Your task to perform on an android device: Search for Italian restaurants on Maps Image 0: 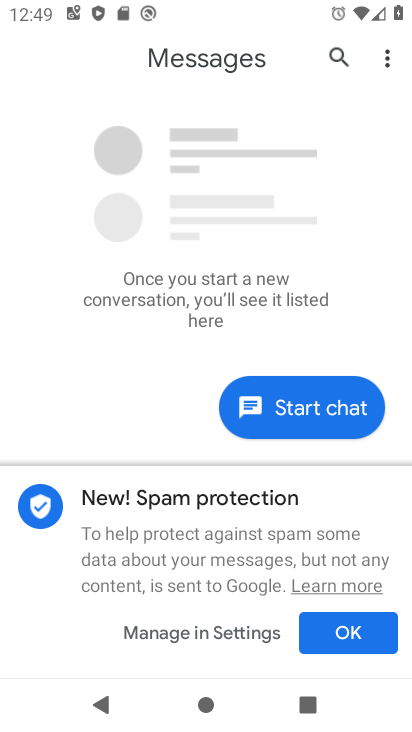
Step 0: press home button
Your task to perform on an android device: Search for Italian restaurants on Maps Image 1: 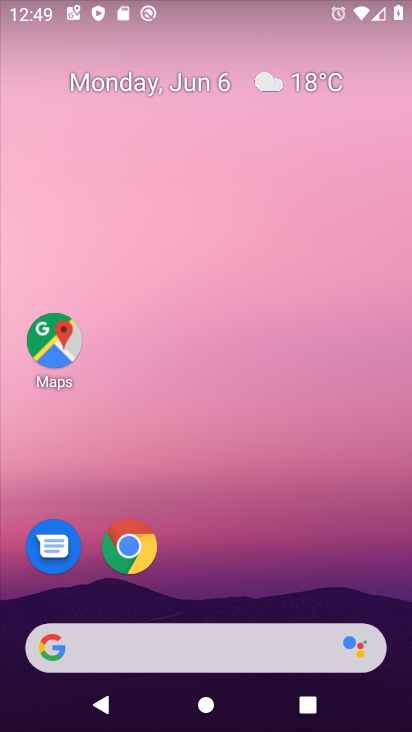
Step 1: click (66, 332)
Your task to perform on an android device: Search for Italian restaurants on Maps Image 2: 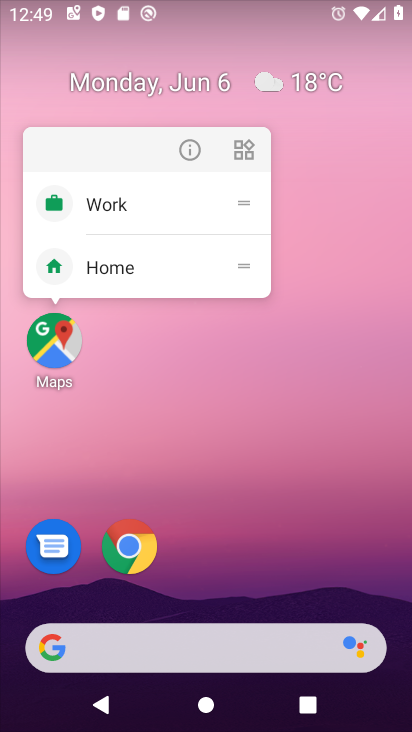
Step 2: click (56, 330)
Your task to perform on an android device: Search for Italian restaurants on Maps Image 3: 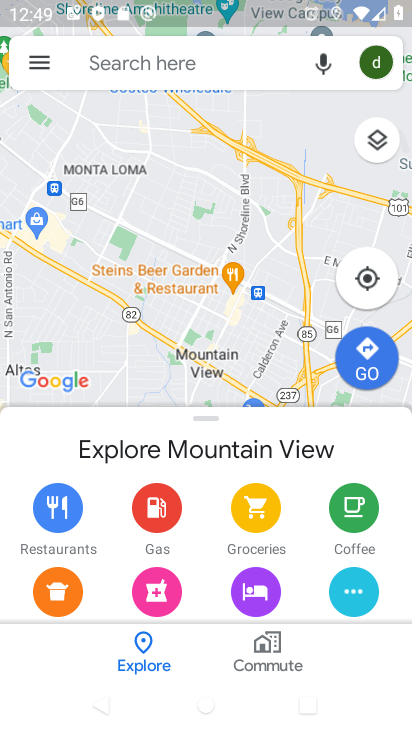
Step 3: click (199, 69)
Your task to perform on an android device: Search for Italian restaurants on Maps Image 4: 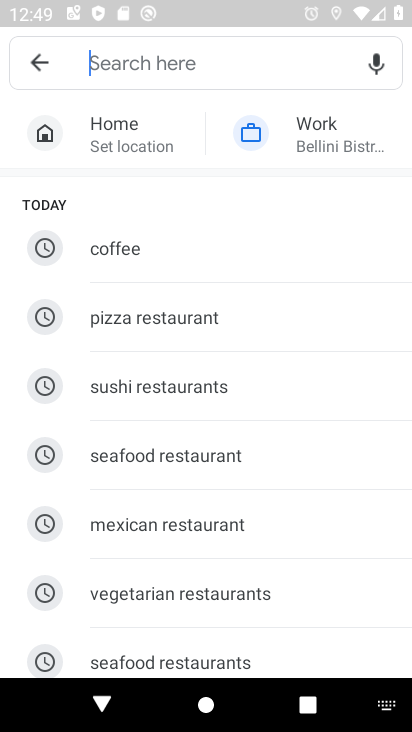
Step 4: type "Italian restaurants"
Your task to perform on an android device: Search for Italian restaurants on Maps Image 5: 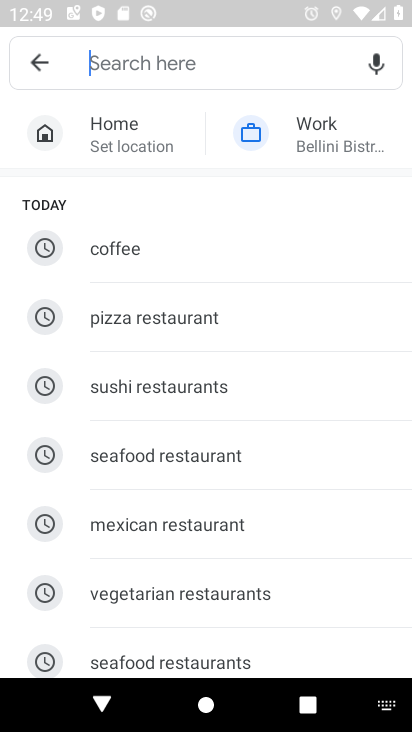
Step 5: click (141, 67)
Your task to perform on an android device: Search for Italian restaurants on Maps Image 6: 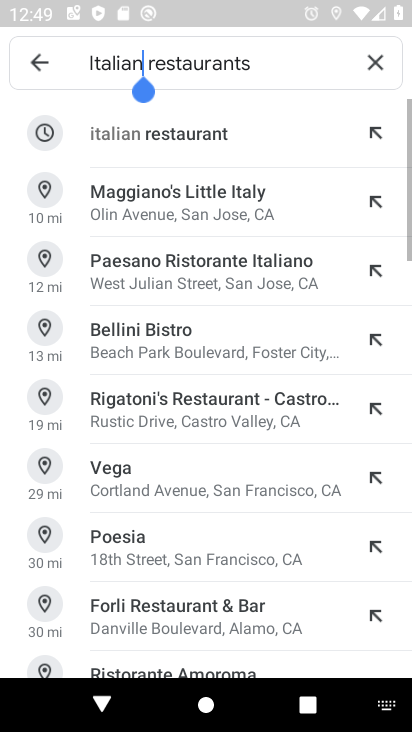
Step 6: click (191, 135)
Your task to perform on an android device: Search for Italian restaurants on Maps Image 7: 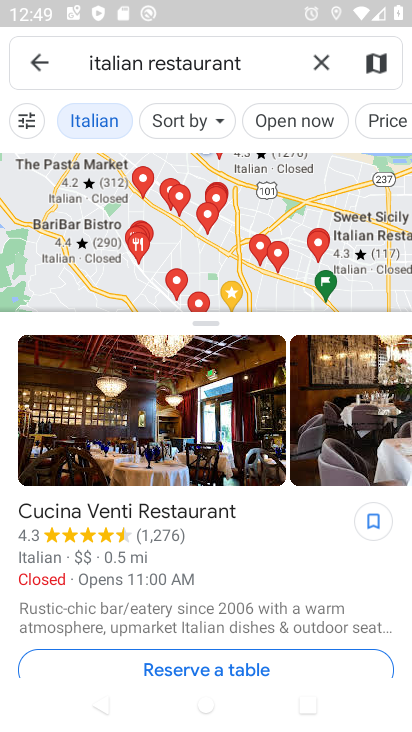
Step 7: task complete